Your task to perform on an android device: turn on data saver in the chrome app Image 0: 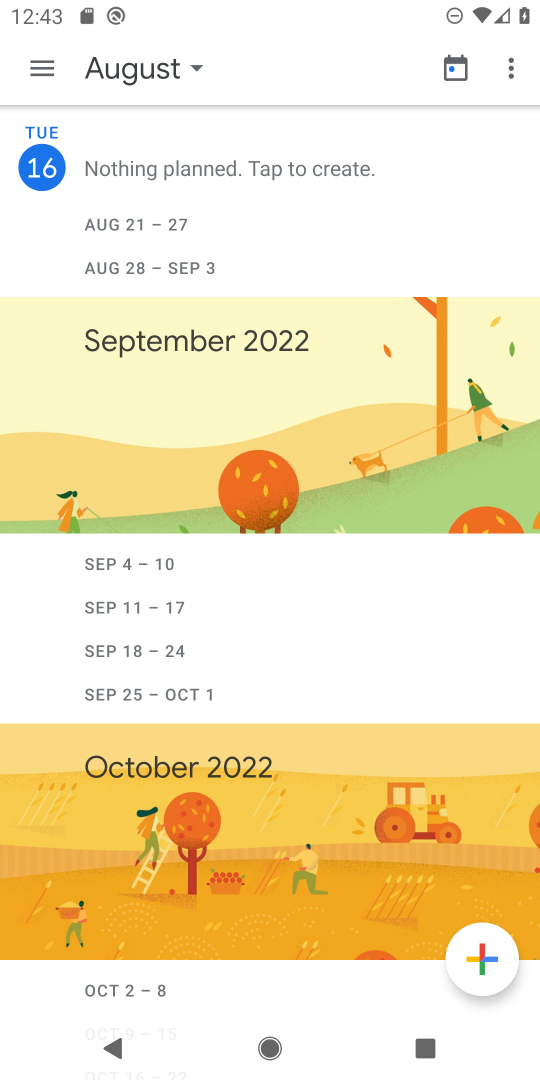
Step 0: press back button
Your task to perform on an android device: turn on data saver in the chrome app Image 1: 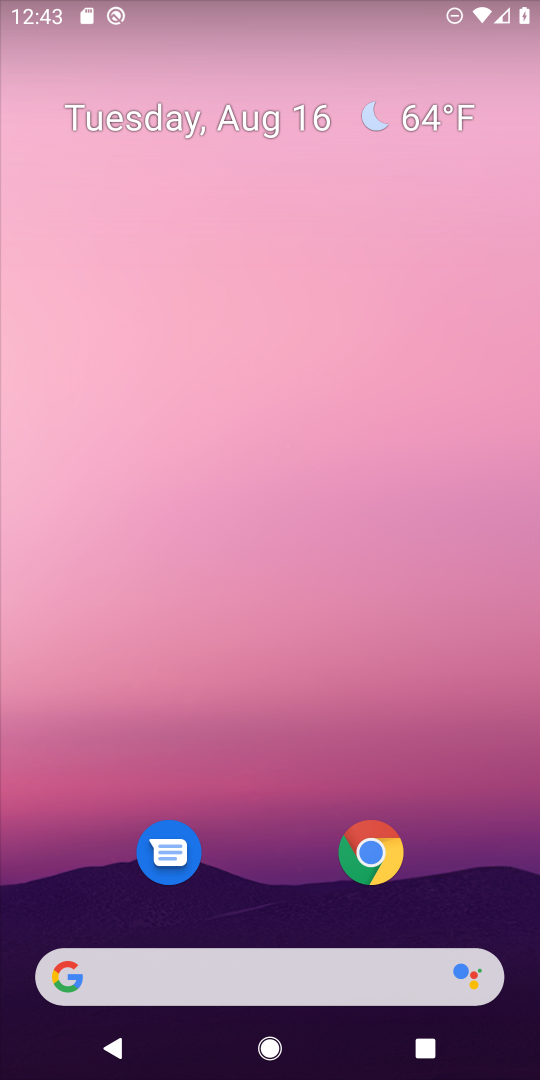
Step 1: click (361, 856)
Your task to perform on an android device: turn on data saver in the chrome app Image 2: 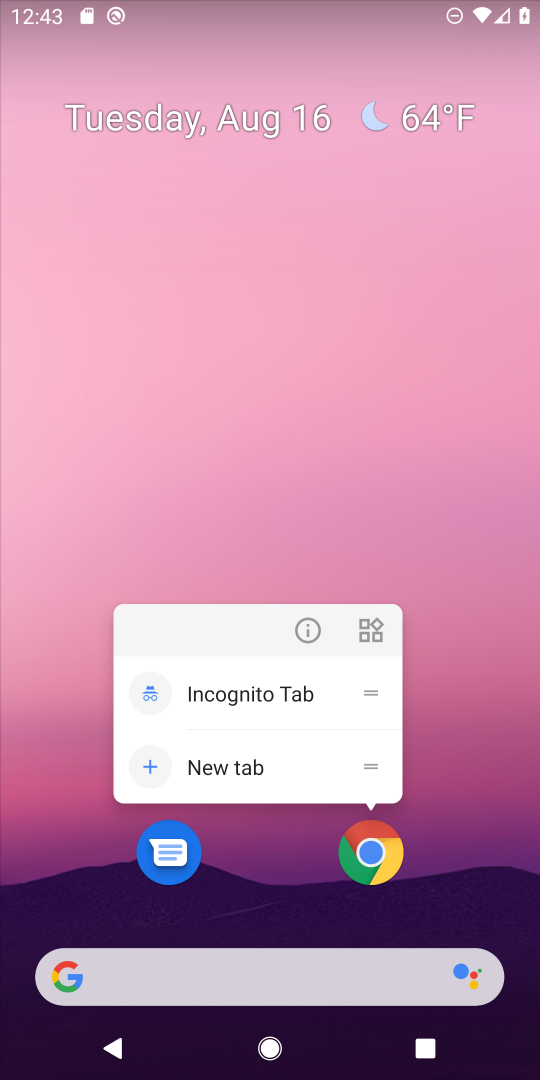
Step 2: click (361, 856)
Your task to perform on an android device: turn on data saver in the chrome app Image 3: 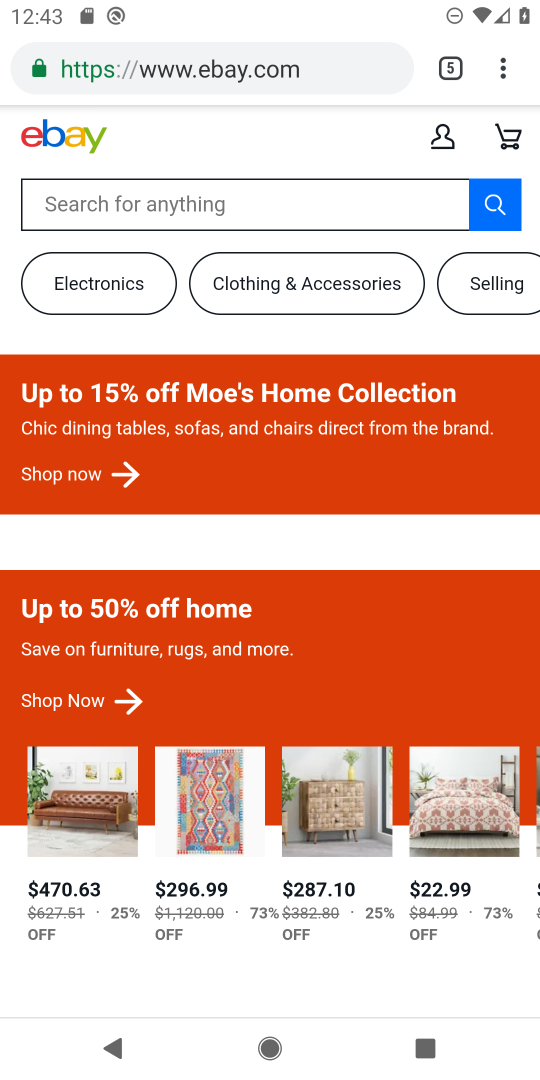
Step 3: drag from (496, 67) to (278, 885)
Your task to perform on an android device: turn on data saver in the chrome app Image 4: 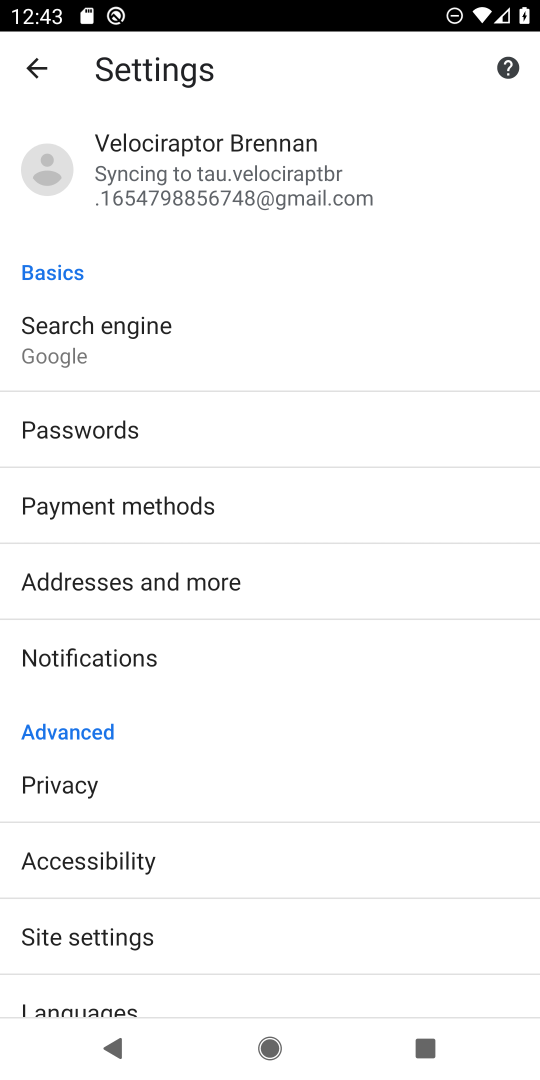
Step 4: drag from (190, 977) to (282, 295)
Your task to perform on an android device: turn on data saver in the chrome app Image 5: 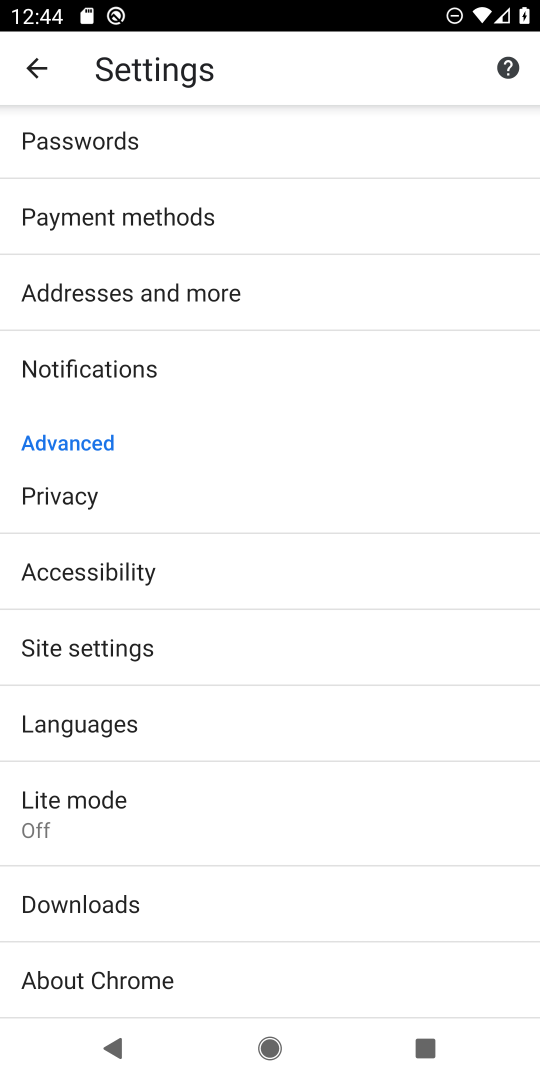
Step 5: click (198, 811)
Your task to perform on an android device: turn on data saver in the chrome app Image 6: 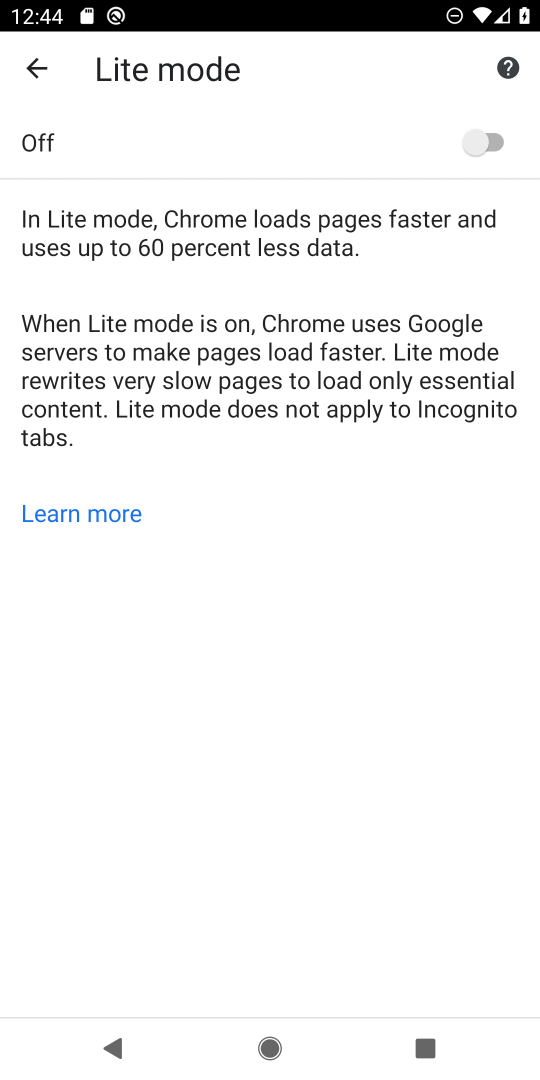
Step 6: click (475, 143)
Your task to perform on an android device: turn on data saver in the chrome app Image 7: 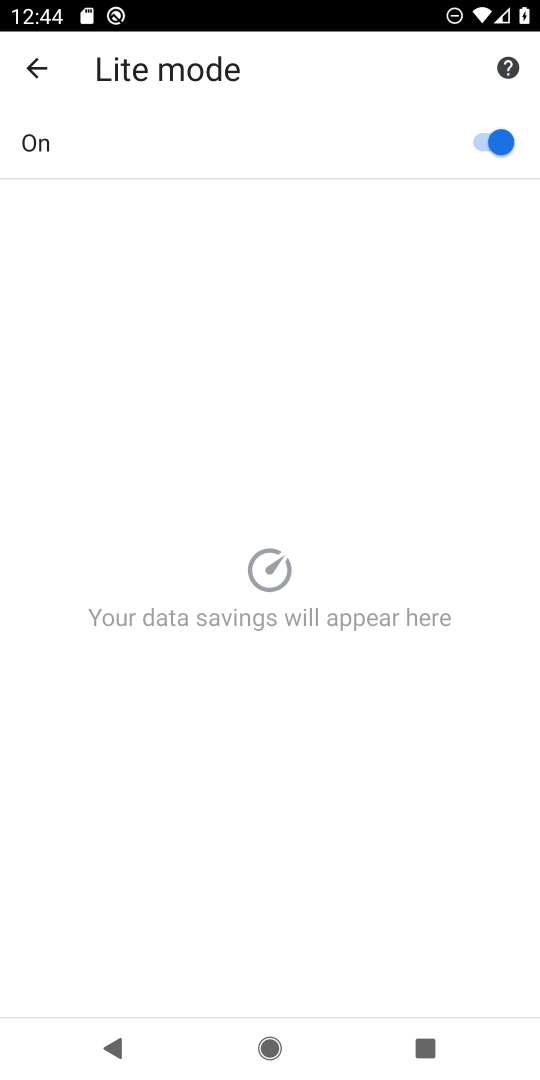
Step 7: task complete